Your task to perform on an android device: check the backup settings in the google photos Image 0: 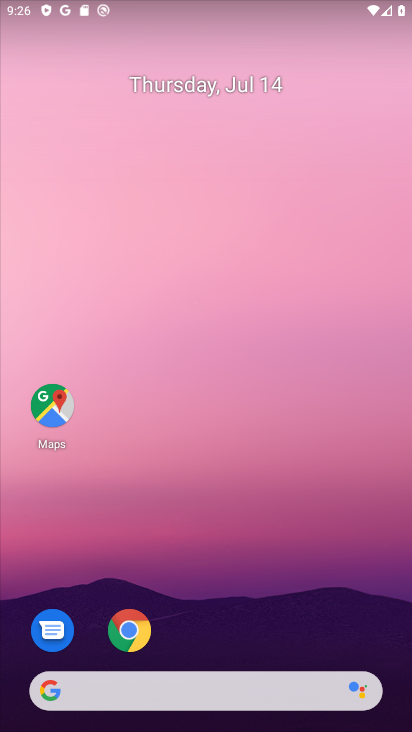
Step 0: drag from (91, 565) to (241, 309)
Your task to perform on an android device: check the backup settings in the google photos Image 1: 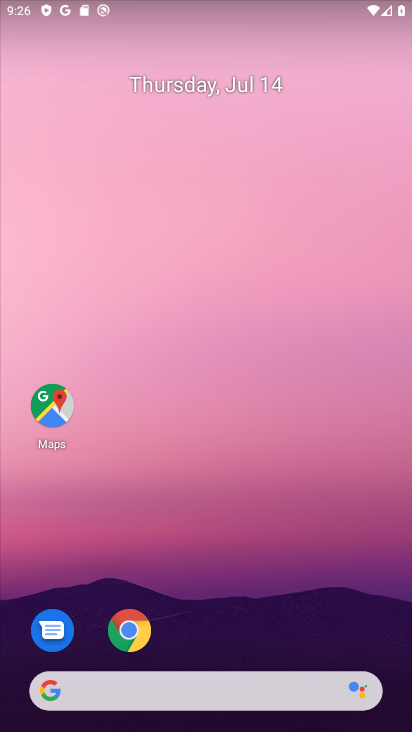
Step 1: drag from (22, 662) to (264, 10)
Your task to perform on an android device: check the backup settings in the google photos Image 2: 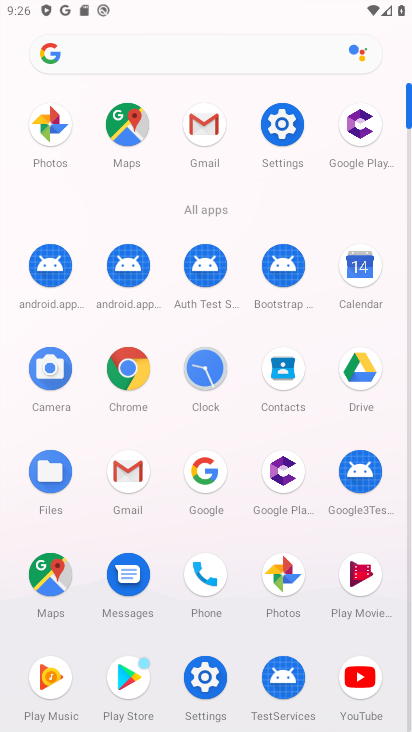
Step 2: click (286, 585)
Your task to perform on an android device: check the backup settings in the google photos Image 3: 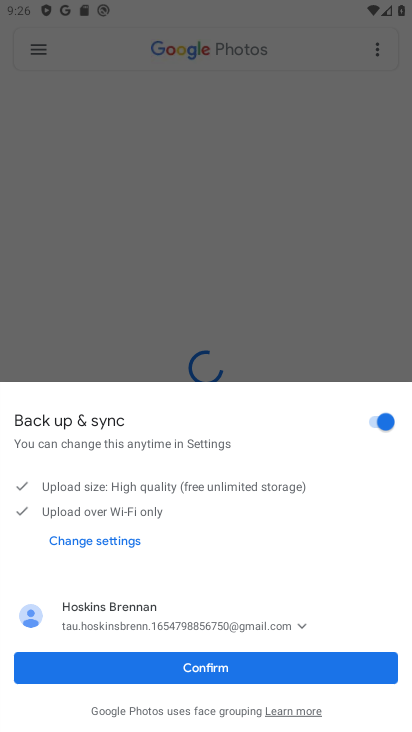
Step 3: click (238, 667)
Your task to perform on an android device: check the backup settings in the google photos Image 4: 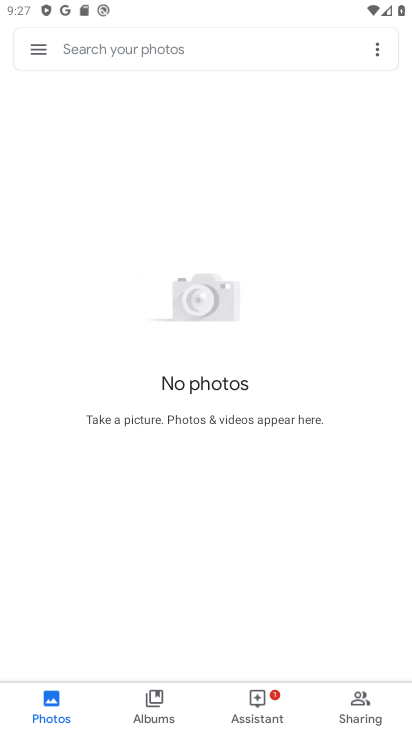
Step 4: click (30, 37)
Your task to perform on an android device: check the backup settings in the google photos Image 5: 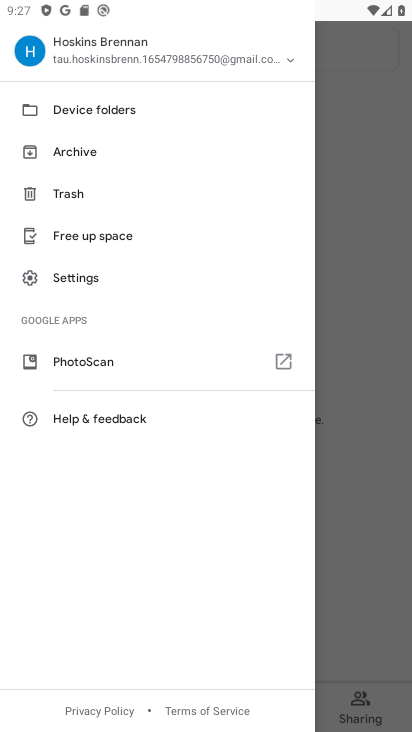
Step 5: click (68, 274)
Your task to perform on an android device: check the backup settings in the google photos Image 6: 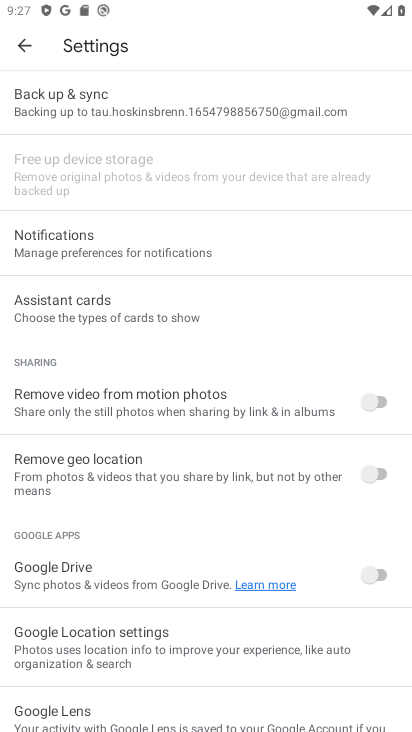
Step 6: click (85, 108)
Your task to perform on an android device: check the backup settings in the google photos Image 7: 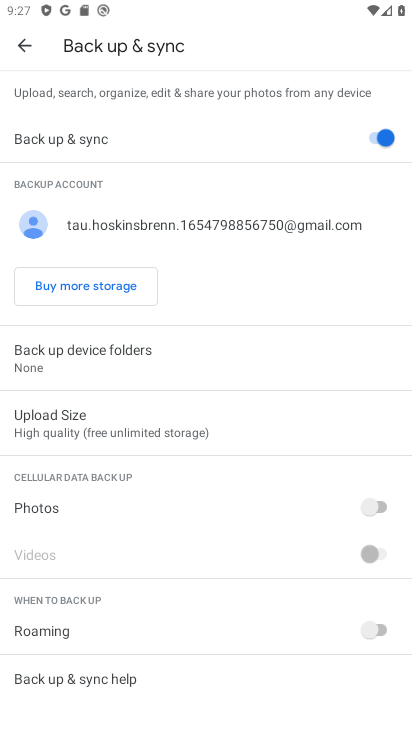
Step 7: task complete